Your task to perform on an android device: turn notification dots on Image 0: 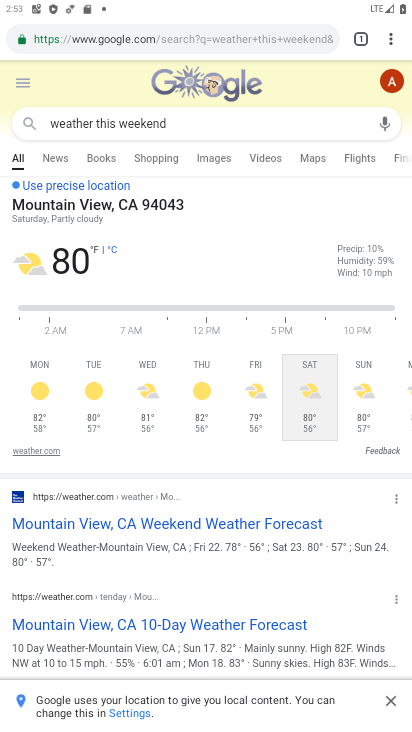
Step 0: press home button
Your task to perform on an android device: turn notification dots on Image 1: 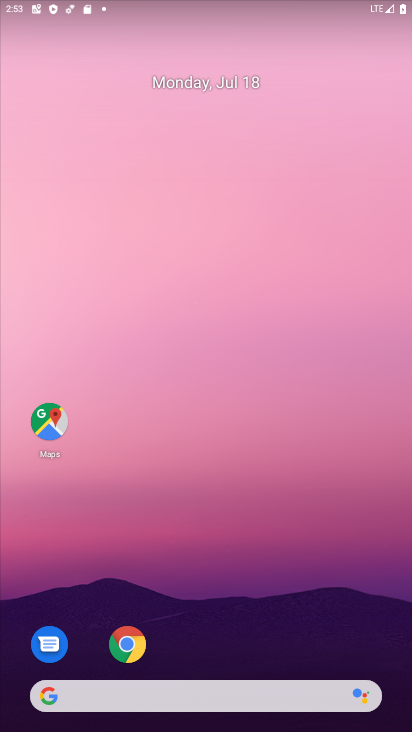
Step 1: drag from (184, 700) to (237, 318)
Your task to perform on an android device: turn notification dots on Image 2: 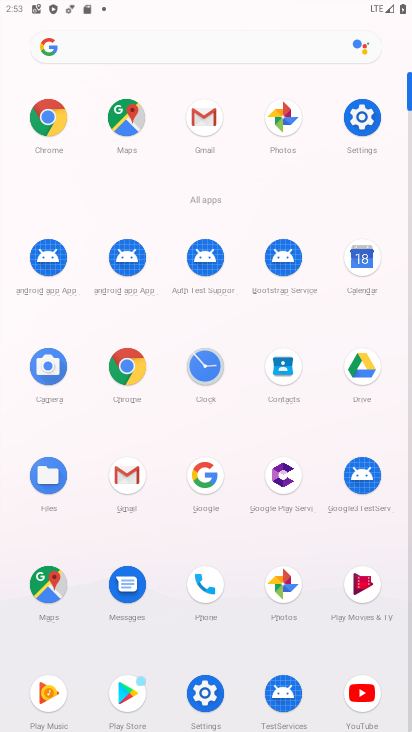
Step 2: click (359, 127)
Your task to perform on an android device: turn notification dots on Image 3: 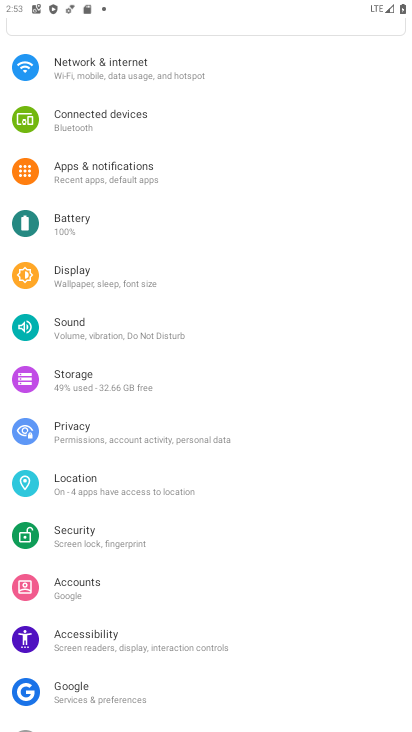
Step 3: click (119, 171)
Your task to perform on an android device: turn notification dots on Image 4: 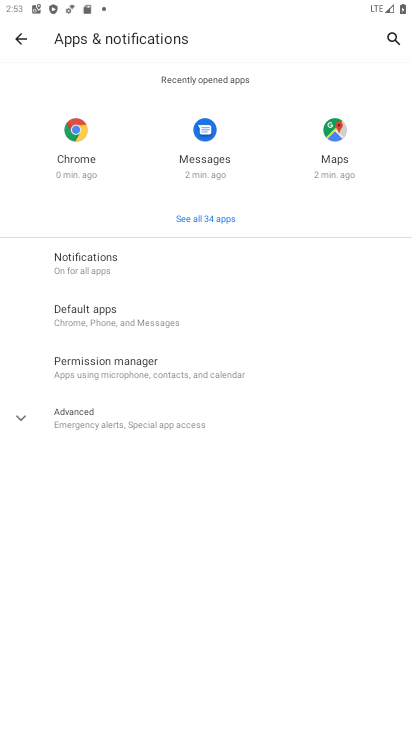
Step 4: click (79, 278)
Your task to perform on an android device: turn notification dots on Image 5: 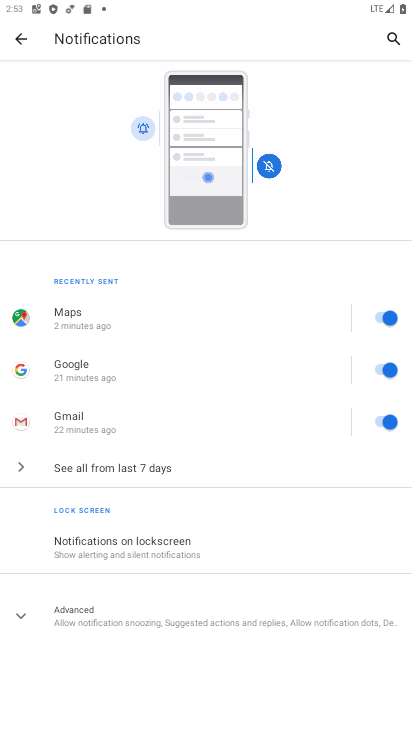
Step 5: click (183, 621)
Your task to perform on an android device: turn notification dots on Image 6: 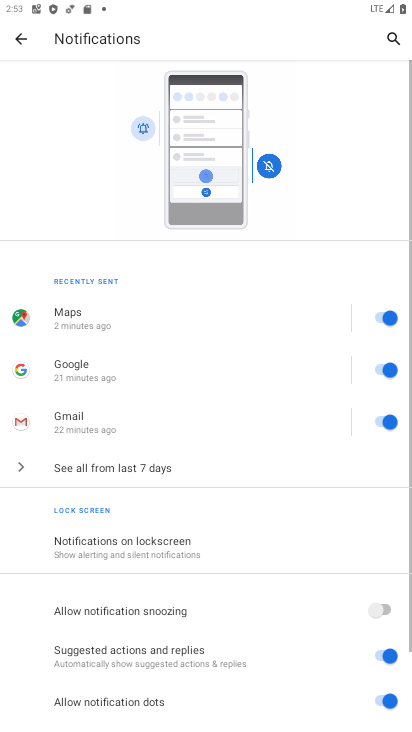
Step 6: drag from (183, 621) to (186, 386)
Your task to perform on an android device: turn notification dots on Image 7: 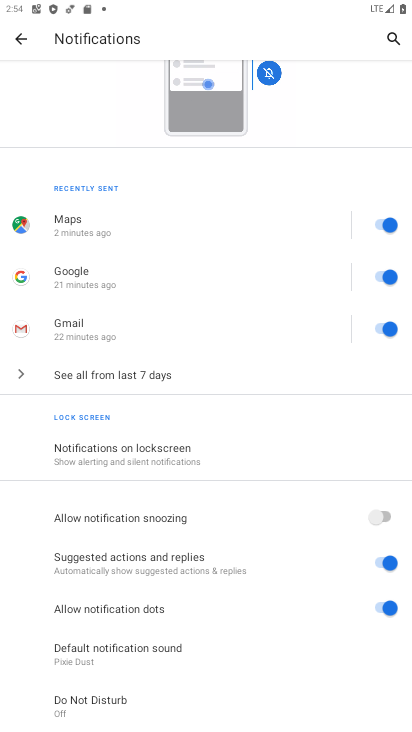
Step 7: press home button
Your task to perform on an android device: turn notification dots on Image 8: 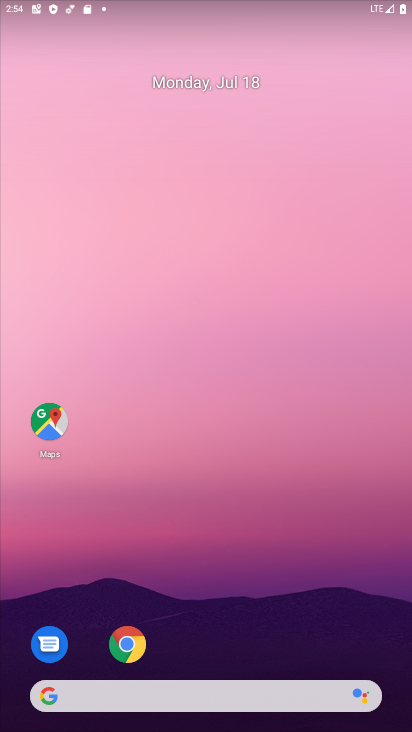
Step 8: drag from (232, 687) to (274, 206)
Your task to perform on an android device: turn notification dots on Image 9: 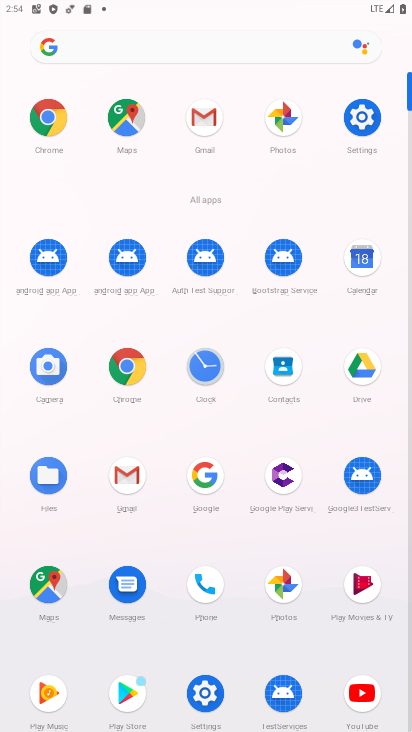
Step 9: click (361, 128)
Your task to perform on an android device: turn notification dots on Image 10: 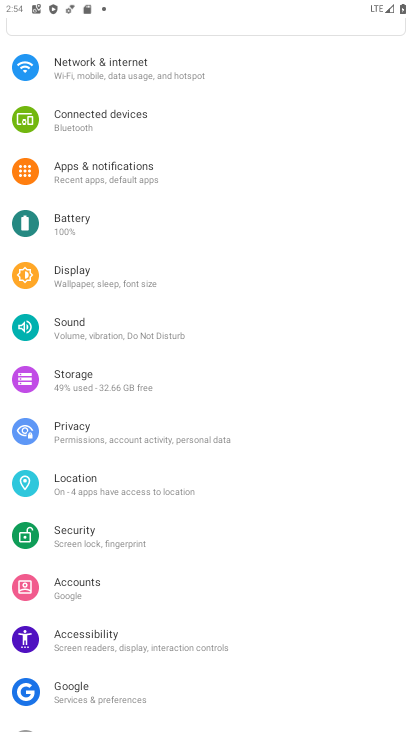
Step 10: click (74, 184)
Your task to perform on an android device: turn notification dots on Image 11: 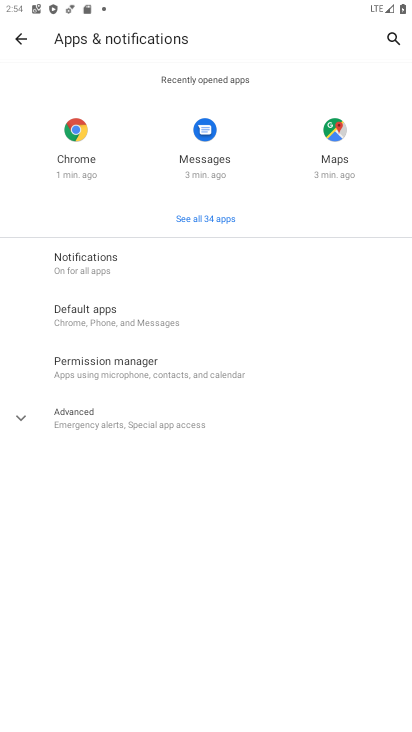
Step 11: click (104, 279)
Your task to perform on an android device: turn notification dots on Image 12: 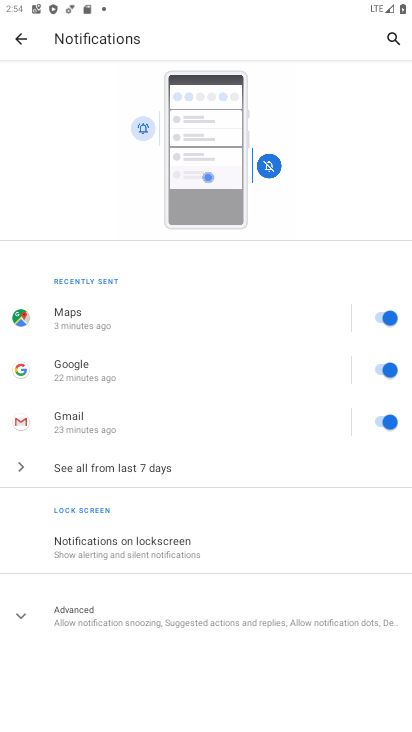
Step 12: drag from (176, 505) to (145, 376)
Your task to perform on an android device: turn notification dots on Image 13: 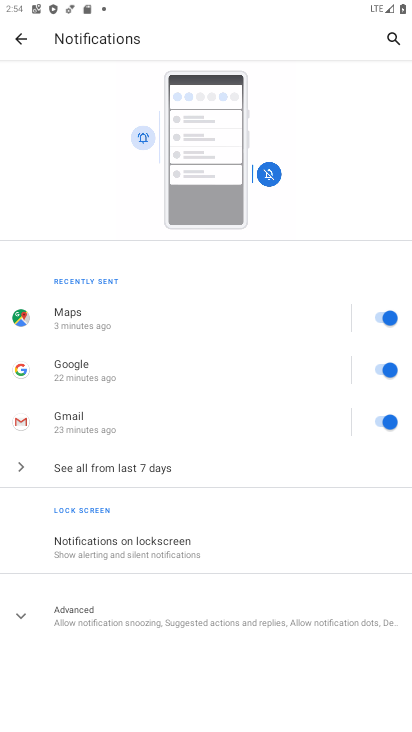
Step 13: click (140, 608)
Your task to perform on an android device: turn notification dots on Image 14: 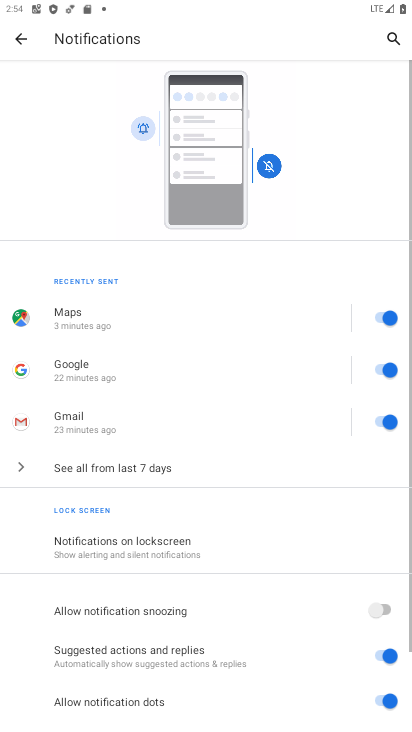
Step 14: task complete